Your task to perform on an android device: Open notification settings Image 0: 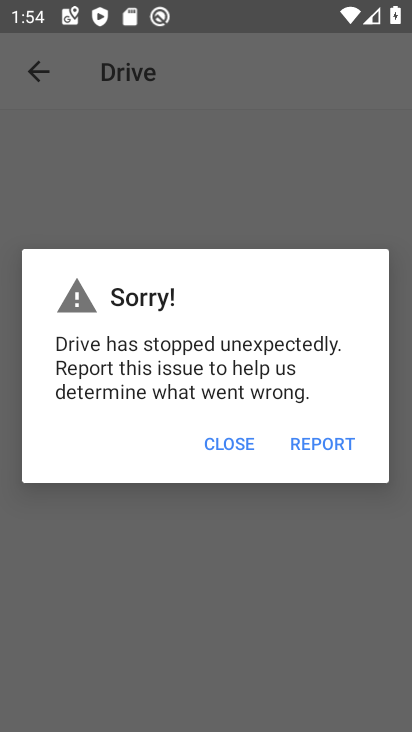
Step 0: drag from (164, 577) to (196, 325)
Your task to perform on an android device: Open notification settings Image 1: 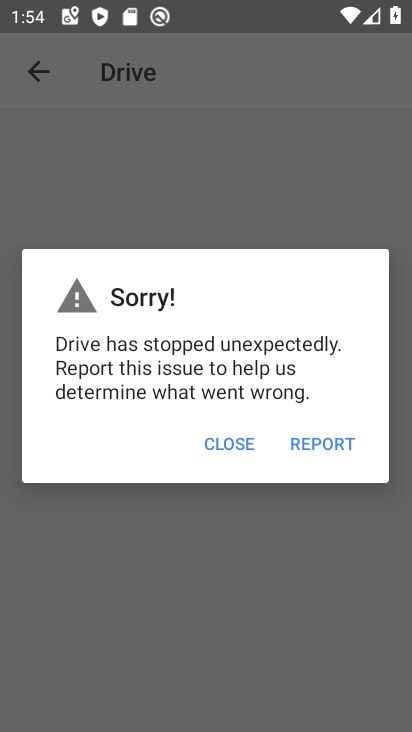
Step 1: press home button
Your task to perform on an android device: Open notification settings Image 2: 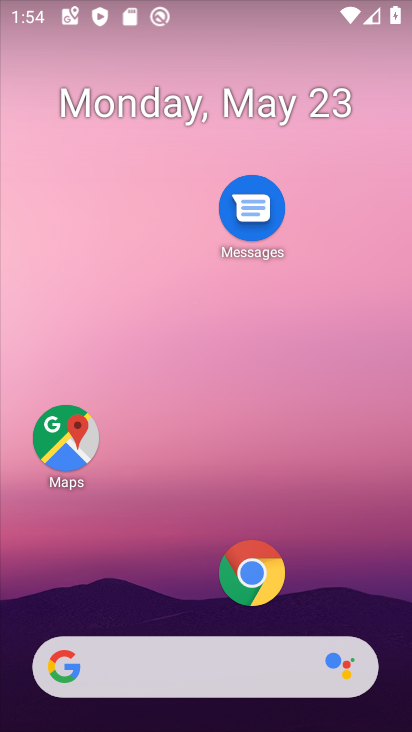
Step 2: drag from (162, 519) to (203, 182)
Your task to perform on an android device: Open notification settings Image 3: 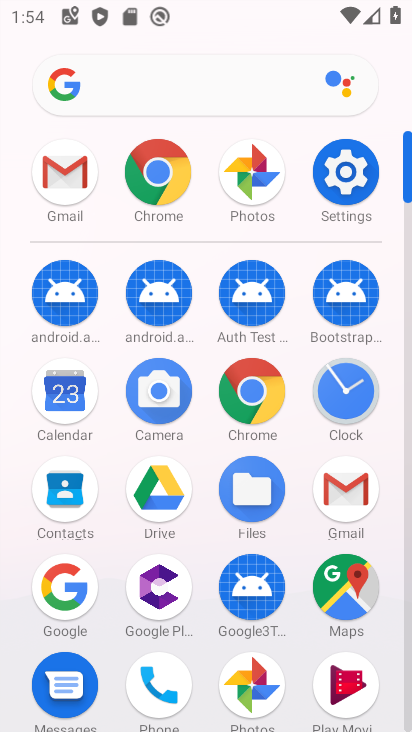
Step 3: click (348, 194)
Your task to perform on an android device: Open notification settings Image 4: 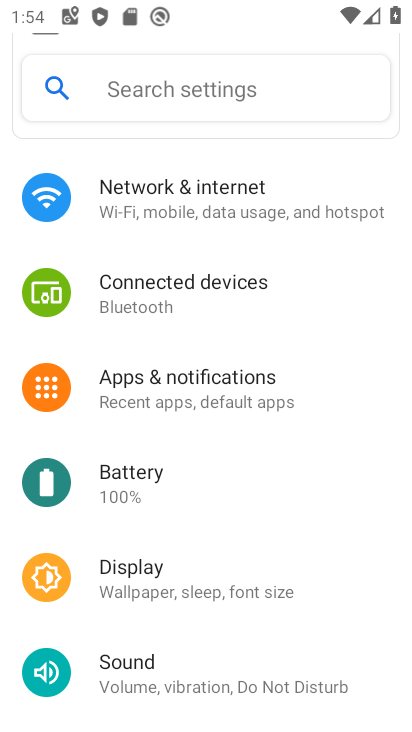
Step 4: drag from (303, 523) to (301, 227)
Your task to perform on an android device: Open notification settings Image 5: 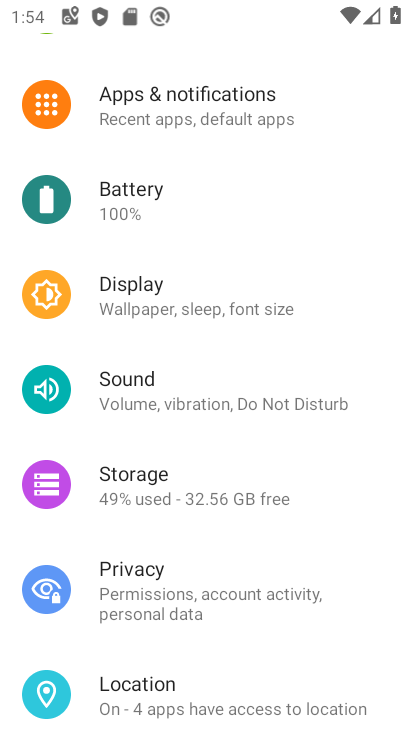
Step 5: drag from (246, 643) to (246, 276)
Your task to perform on an android device: Open notification settings Image 6: 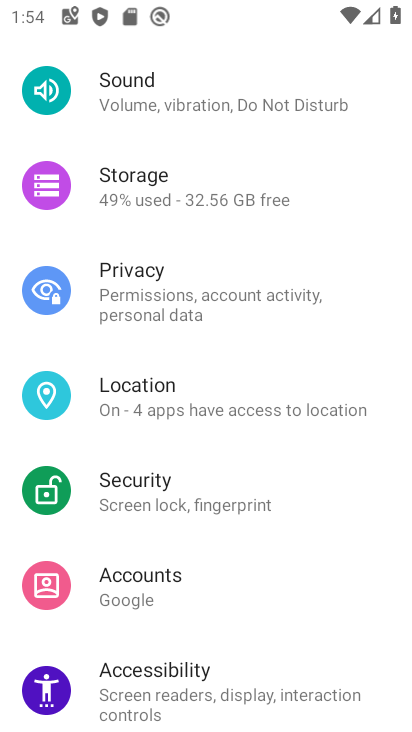
Step 6: drag from (227, 647) to (248, 288)
Your task to perform on an android device: Open notification settings Image 7: 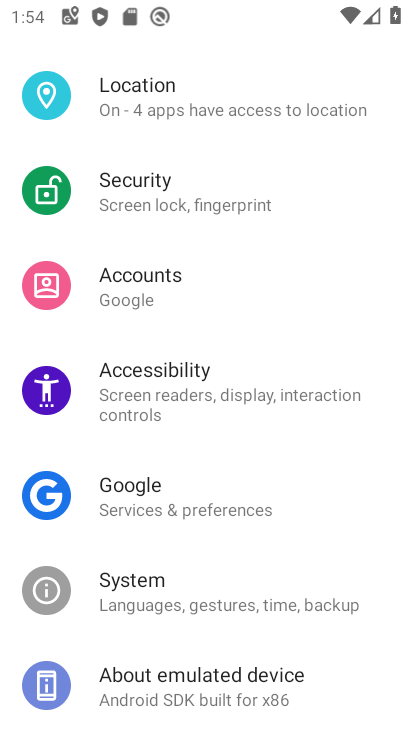
Step 7: drag from (268, 555) to (278, 332)
Your task to perform on an android device: Open notification settings Image 8: 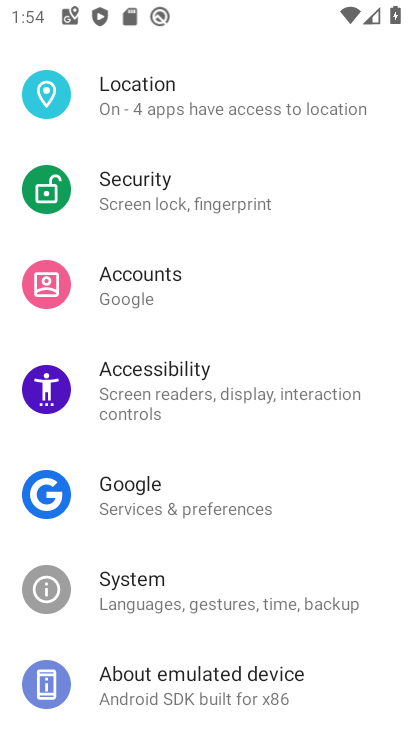
Step 8: drag from (301, 270) to (289, 612)
Your task to perform on an android device: Open notification settings Image 9: 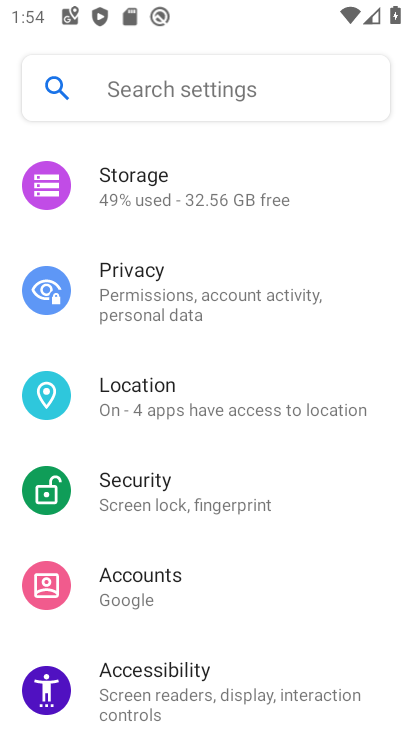
Step 9: drag from (268, 377) to (268, 613)
Your task to perform on an android device: Open notification settings Image 10: 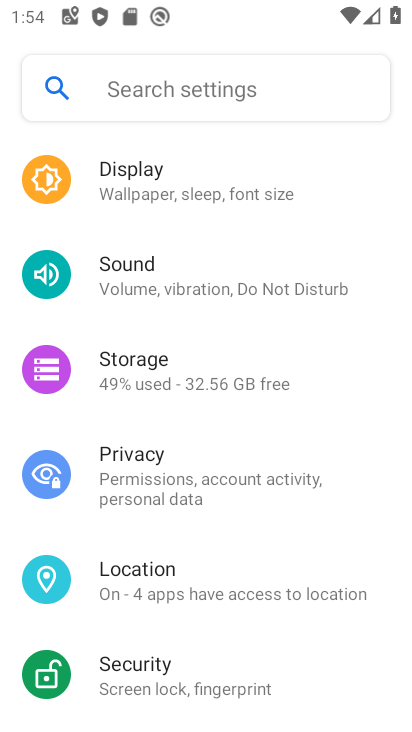
Step 10: drag from (297, 366) to (296, 614)
Your task to perform on an android device: Open notification settings Image 11: 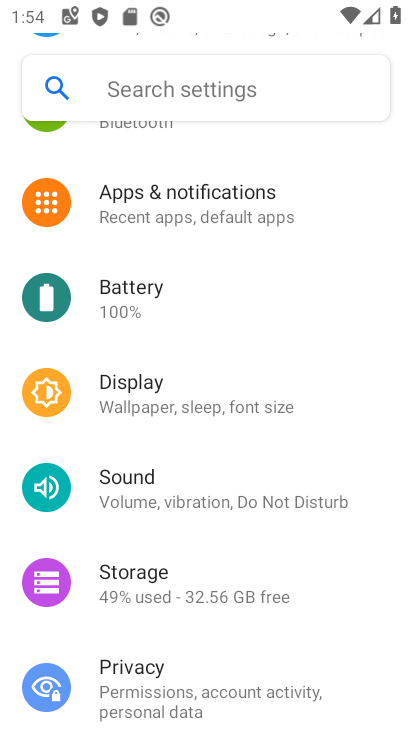
Step 11: click (191, 183)
Your task to perform on an android device: Open notification settings Image 12: 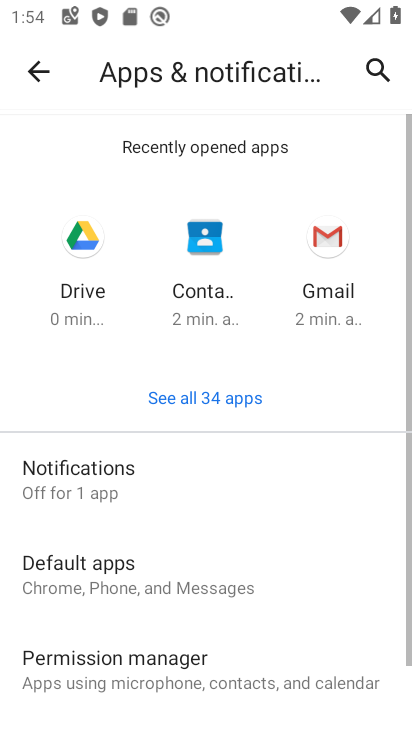
Step 12: drag from (308, 518) to (309, 677)
Your task to perform on an android device: Open notification settings Image 13: 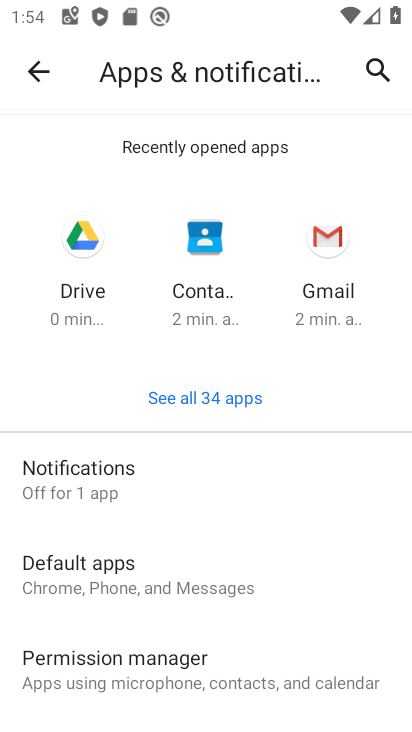
Step 13: drag from (292, 606) to (292, 366)
Your task to perform on an android device: Open notification settings Image 14: 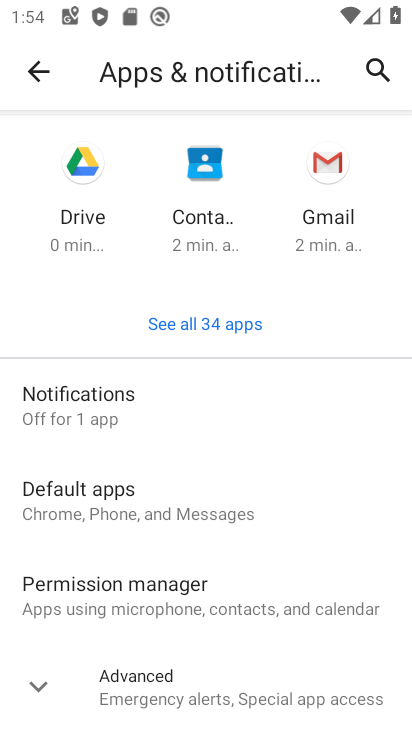
Step 14: click (169, 657)
Your task to perform on an android device: Open notification settings Image 15: 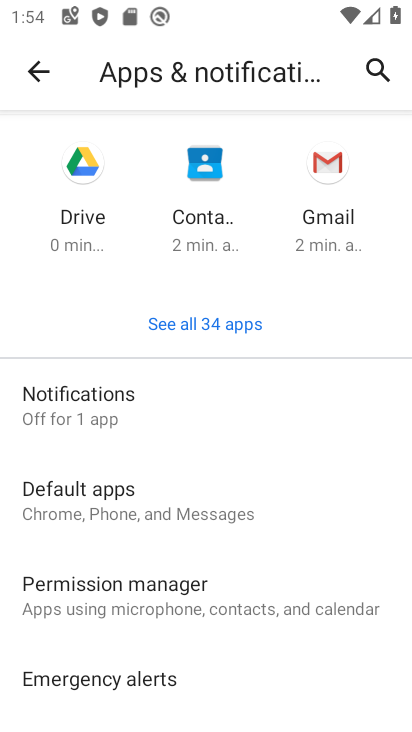
Step 15: click (89, 398)
Your task to perform on an android device: Open notification settings Image 16: 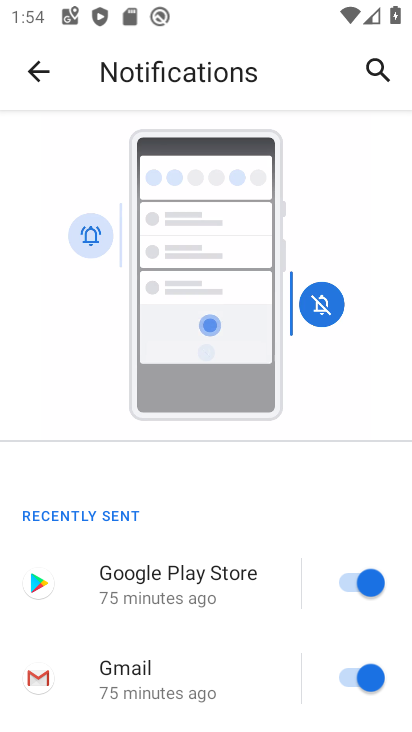
Step 16: task complete